Your task to perform on an android device: turn off data saver in the chrome app Image 0: 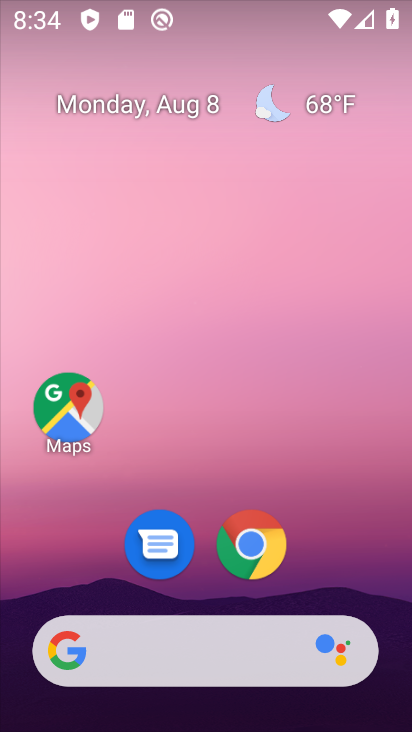
Step 0: press home button
Your task to perform on an android device: turn off data saver in the chrome app Image 1: 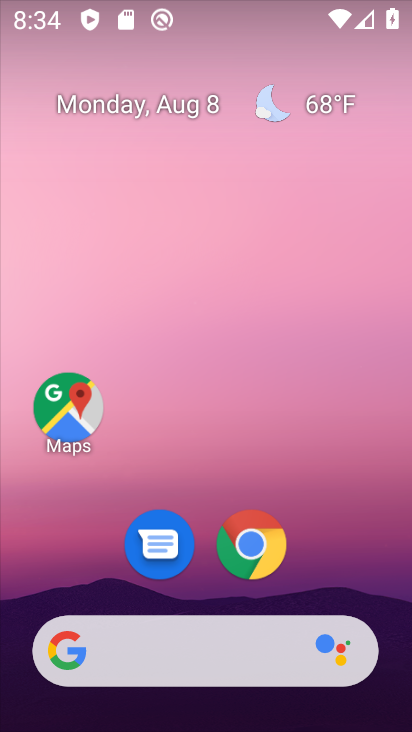
Step 1: press home button
Your task to perform on an android device: turn off data saver in the chrome app Image 2: 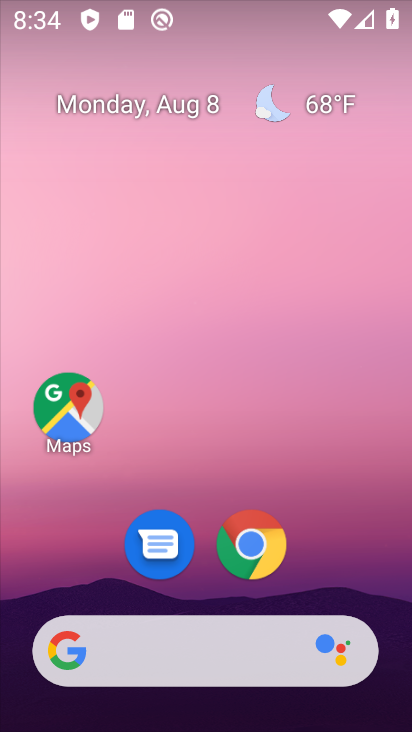
Step 2: drag from (309, 577) to (331, 21)
Your task to perform on an android device: turn off data saver in the chrome app Image 3: 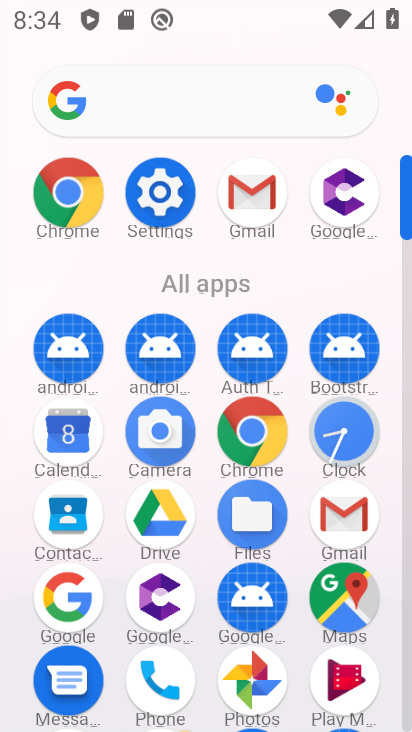
Step 3: click (62, 189)
Your task to perform on an android device: turn off data saver in the chrome app Image 4: 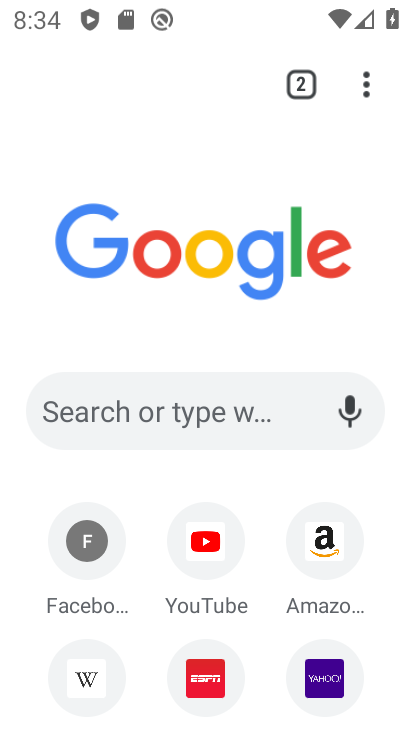
Step 4: click (366, 83)
Your task to perform on an android device: turn off data saver in the chrome app Image 5: 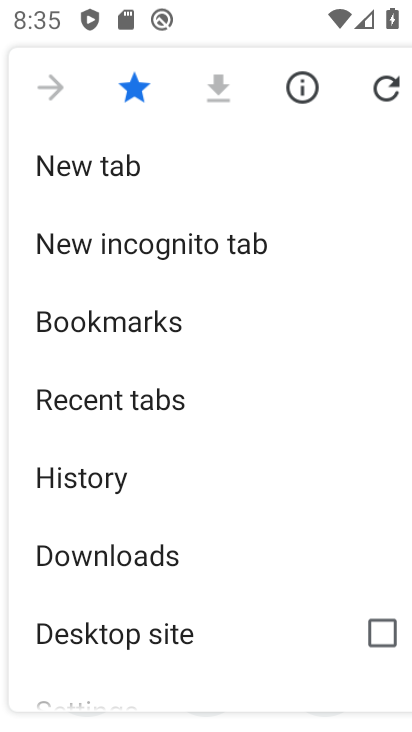
Step 5: drag from (210, 636) to (206, 77)
Your task to perform on an android device: turn off data saver in the chrome app Image 6: 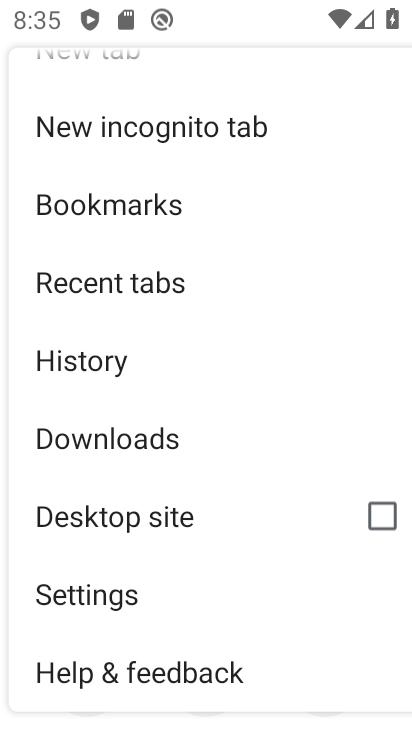
Step 6: click (152, 594)
Your task to perform on an android device: turn off data saver in the chrome app Image 7: 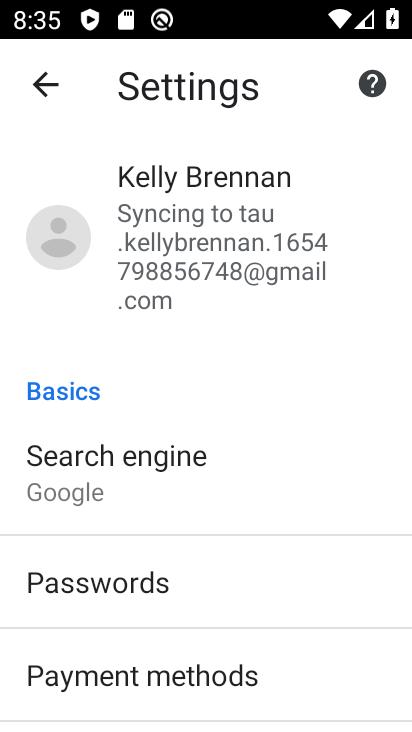
Step 7: drag from (291, 655) to (289, 113)
Your task to perform on an android device: turn off data saver in the chrome app Image 8: 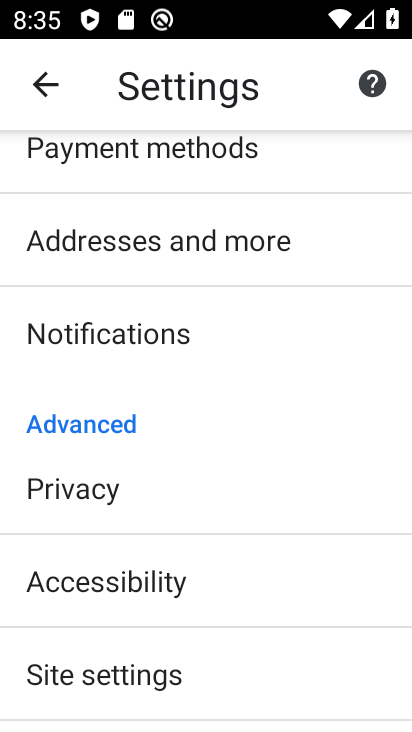
Step 8: drag from (238, 661) to (240, 203)
Your task to perform on an android device: turn off data saver in the chrome app Image 9: 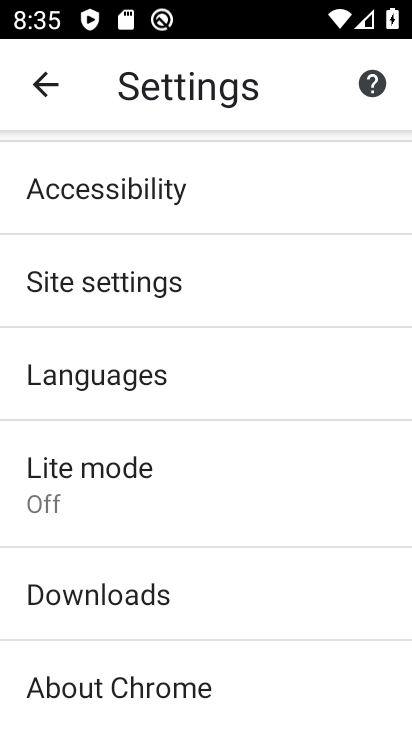
Step 9: click (156, 506)
Your task to perform on an android device: turn off data saver in the chrome app Image 10: 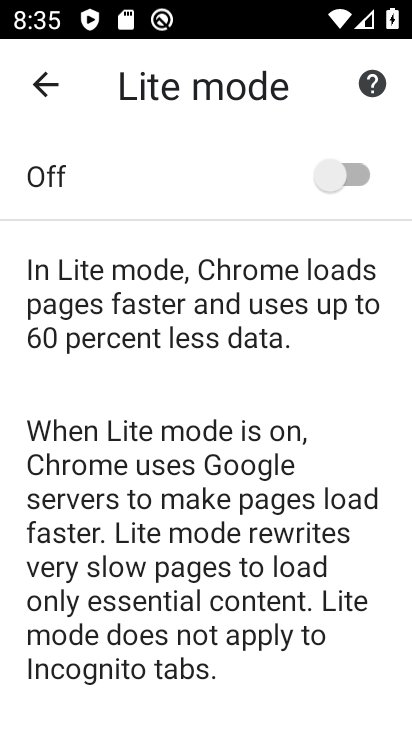
Step 10: task complete